Your task to perform on an android device: change the clock style Image 0: 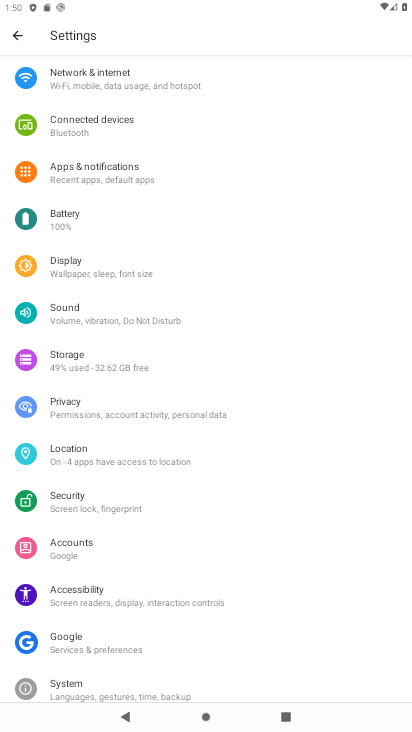
Step 0: press home button
Your task to perform on an android device: change the clock style Image 1: 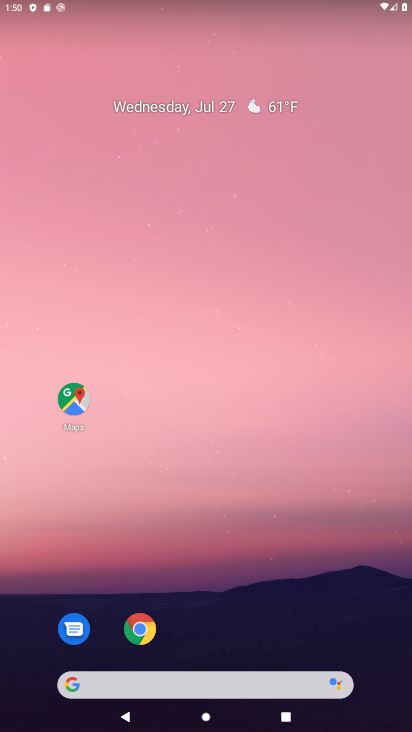
Step 1: drag from (219, 647) to (248, 82)
Your task to perform on an android device: change the clock style Image 2: 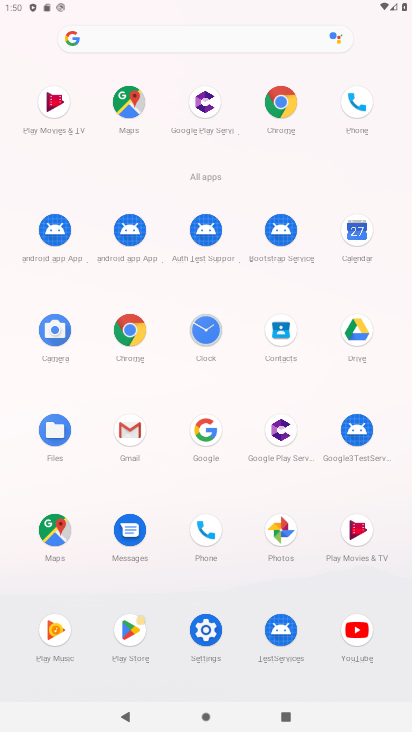
Step 2: click (207, 331)
Your task to perform on an android device: change the clock style Image 3: 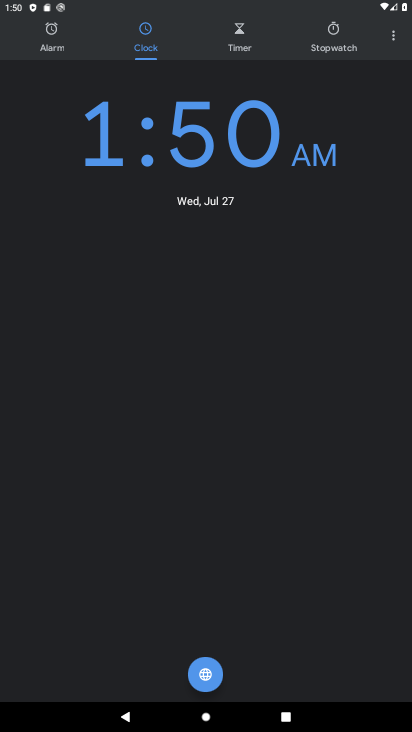
Step 3: click (394, 39)
Your task to perform on an android device: change the clock style Image 4: 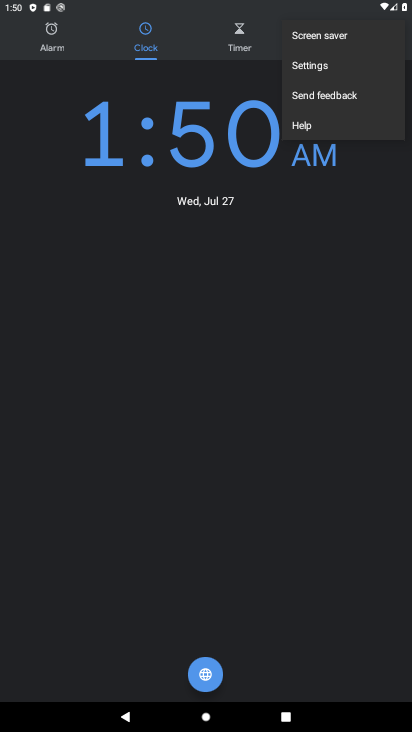
Step 4: click (323, 63)
Your task to perform on an android device: change the clock style Image 5: 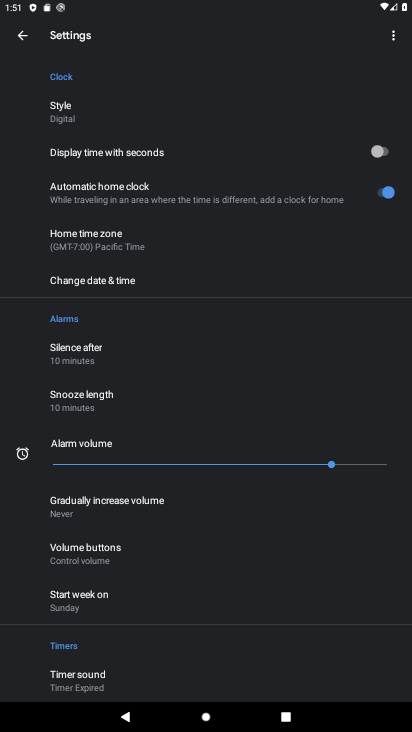
Step 5: click (66, 118)
Your task to perform on an android device: change the clock style Image 6: 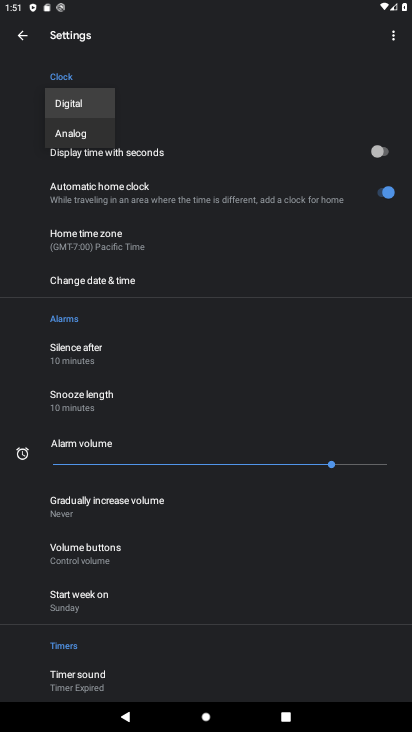
Step 6: click (71, 138)
Your task to perform on an android device: change the clock style Image 7: 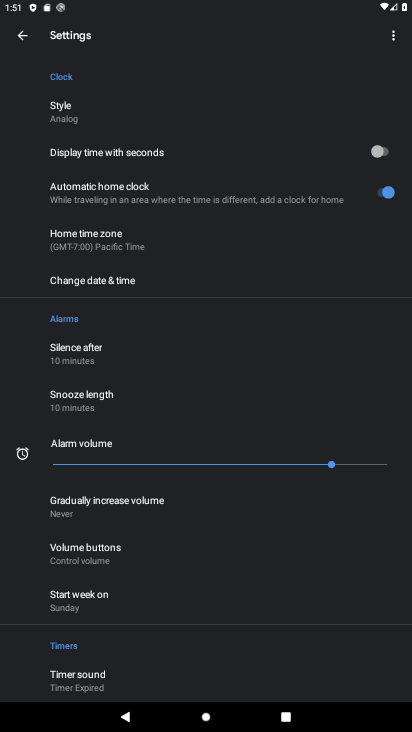
Step 7: task complete